Your task to perform on an android device: Open Google Image 0: 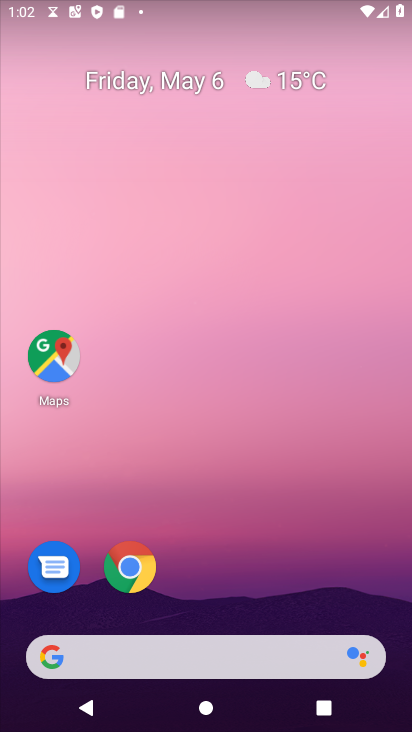
Step 0: drag from (290, 540) to (224, 142)
Your task to perform on an android device: Open Google Image 1: 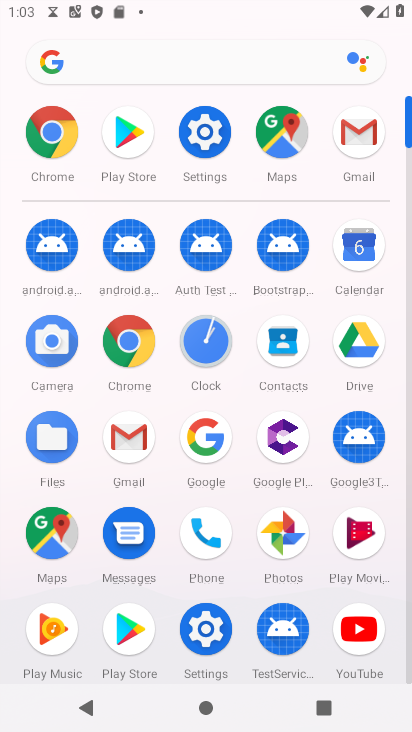
Step 1: click (207, 429)
Your task to perform on an android device: Open Google Image 2: 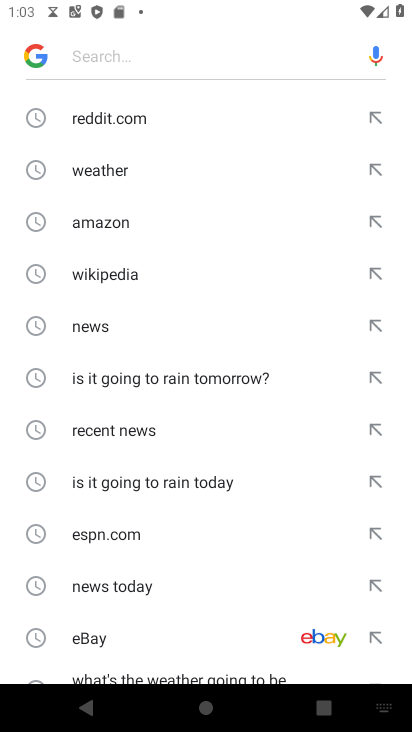
Step 2: task complete